Your task to perform on an android device: Open accessibility settings Image 0: 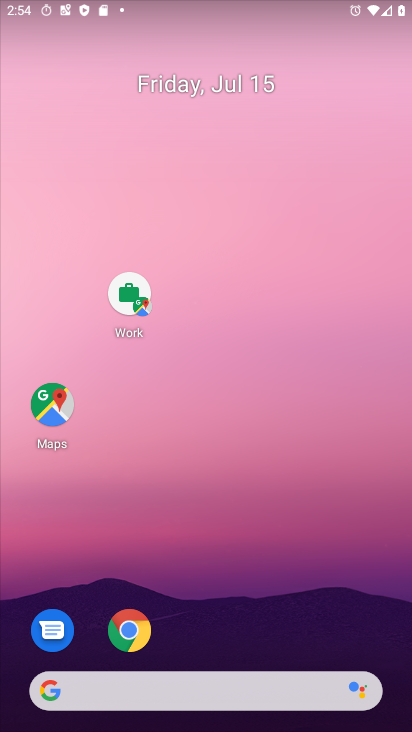
Step 0: drag from (218, 632) to (224, 262)
Your task to perform on an android device: Open accessibility settings Image 1: 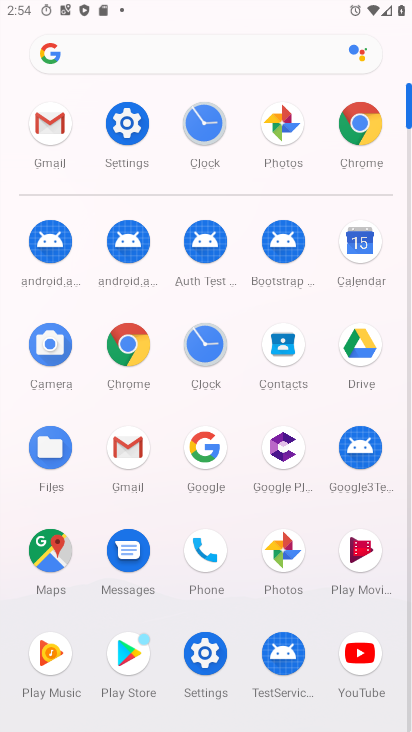
Step 1: click (114, 125)
Your task to perform on an android device: Open accessibility settings Image 2: 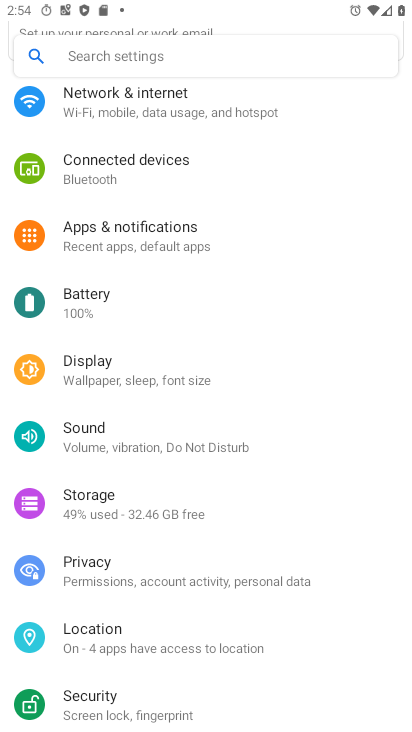
Step 2: drag from (180, 546) to (217, 201)
Your task to perform on an android device: Open accessibility settings Image 3: 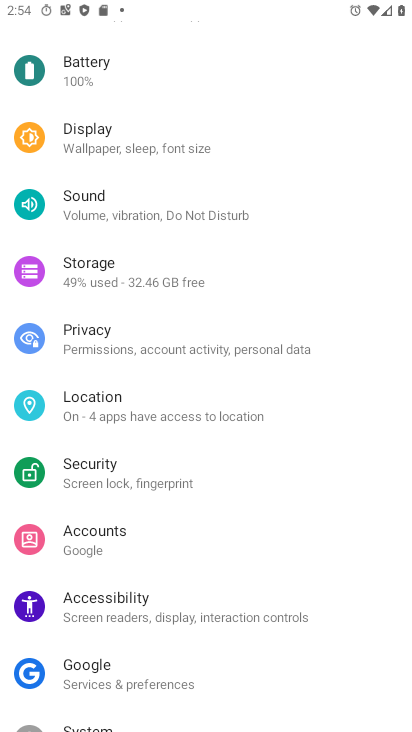
Step 3: click (118, 590)
Your task to perform on an android device: Open accessibility settings Image 4: 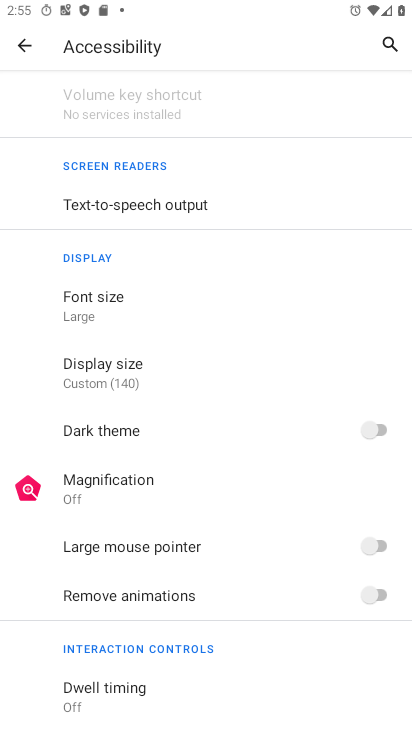
Step 4: task complete